Your task to perform on an android device: Add "usb-c to usb-b" to the cart on newegg, then select checkout. Image 0: 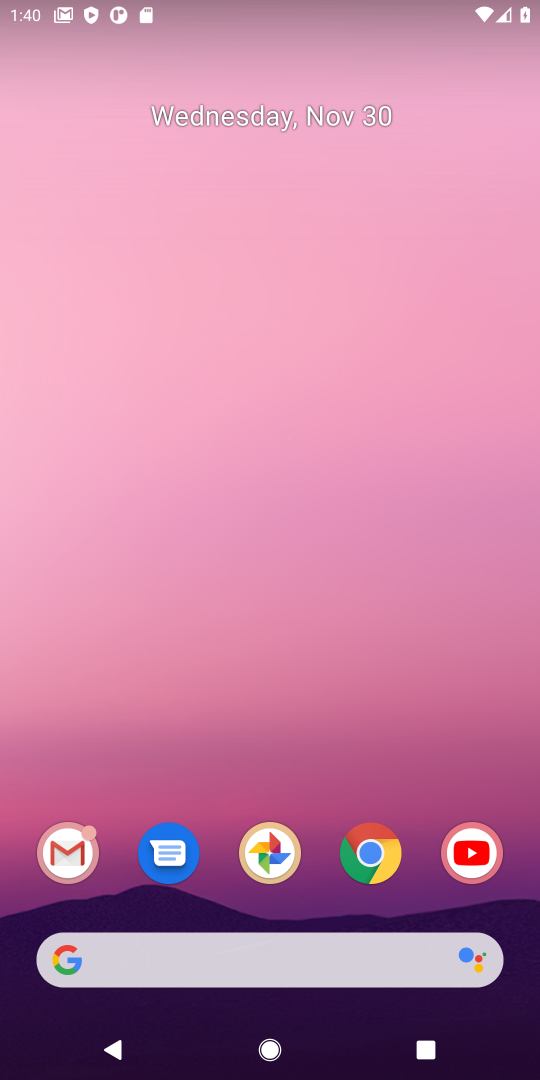
Step 0: click (374, 859)
Your task to perform on an android device: Add "usb-c to usb-b" to the cart on newegg, then select checkout. Image 1: 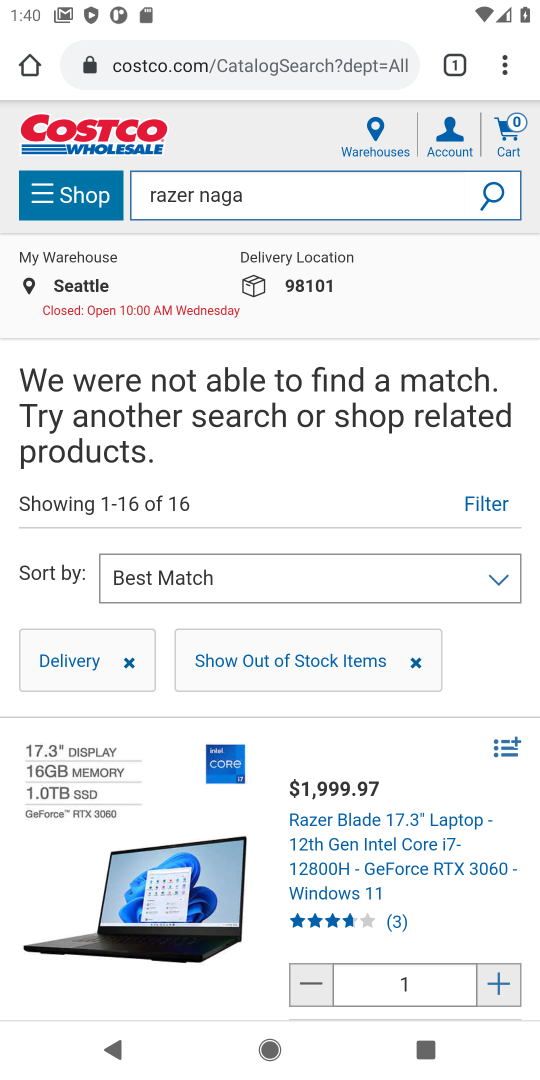
Step 1: click (243, 70)
Your task to perform on an android device: Add "usb-c to usb-b" to the cart on newegg, then select checkout. Image 2: 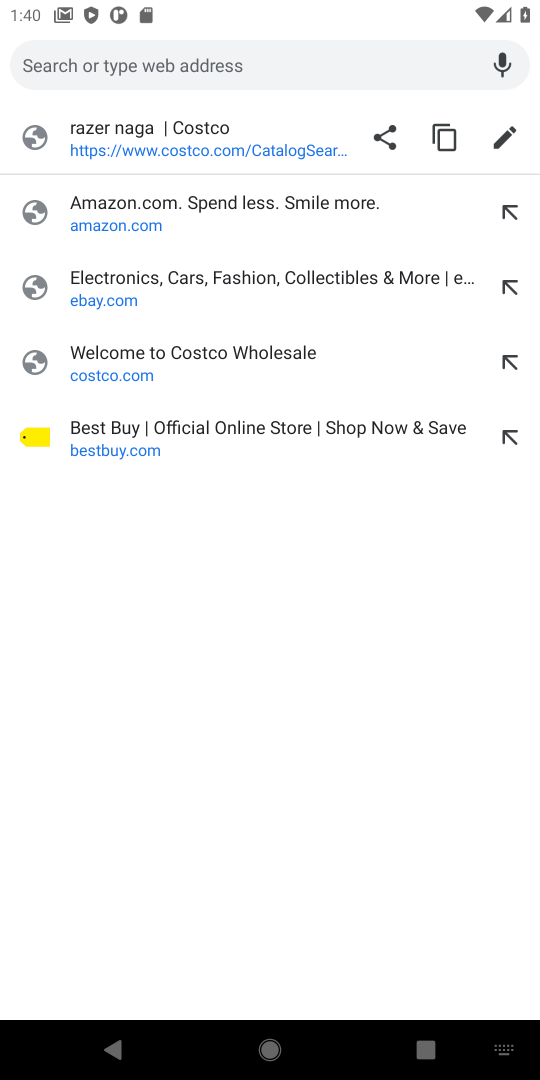
Step 2: type "newegg.com"
Your task to perform on an android device: Add "usb-c to usb-b" to the cart on newegg, then select checkout. Image 3: 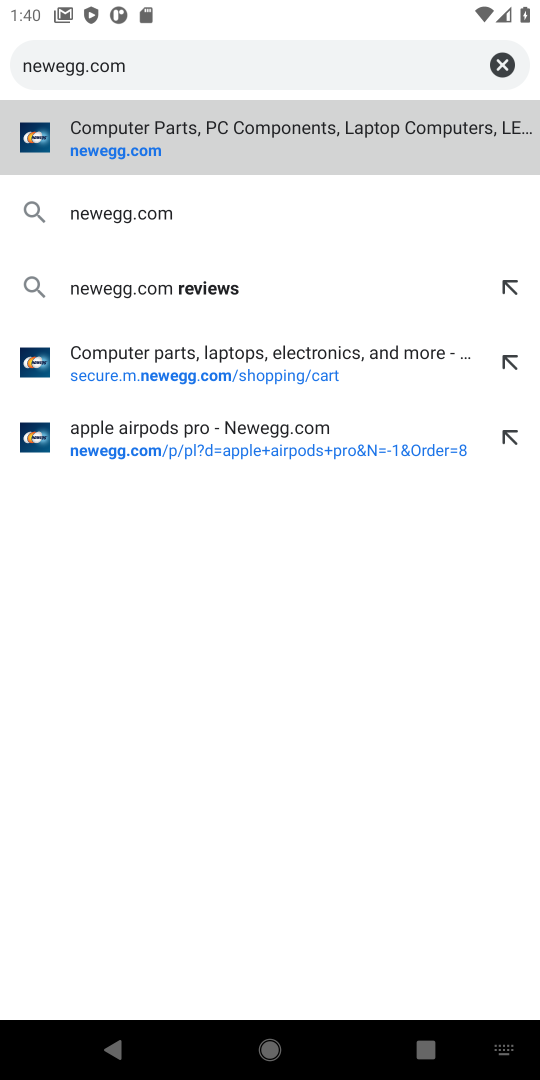
Step 3: click (126, 145)
Your task to perform on an android device: Add "usb-c to usb-b" to the cart on newegg, then select checkout. Image 4: 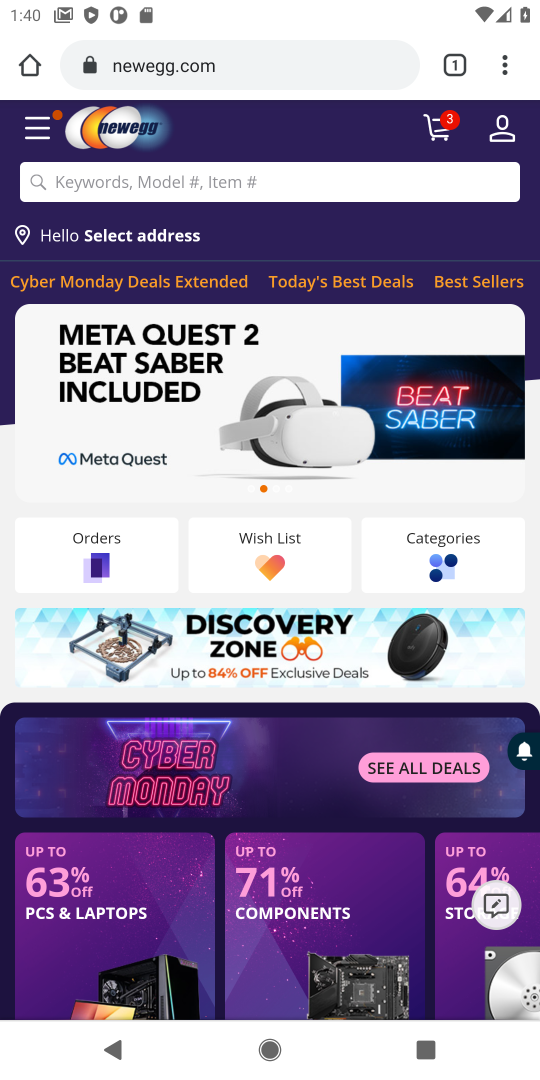
Step 4: click (113, 191)
Your task to perform on an android device: Add "usb-c to usb-b" to the cart on newegg, then select checkout. Image 5: 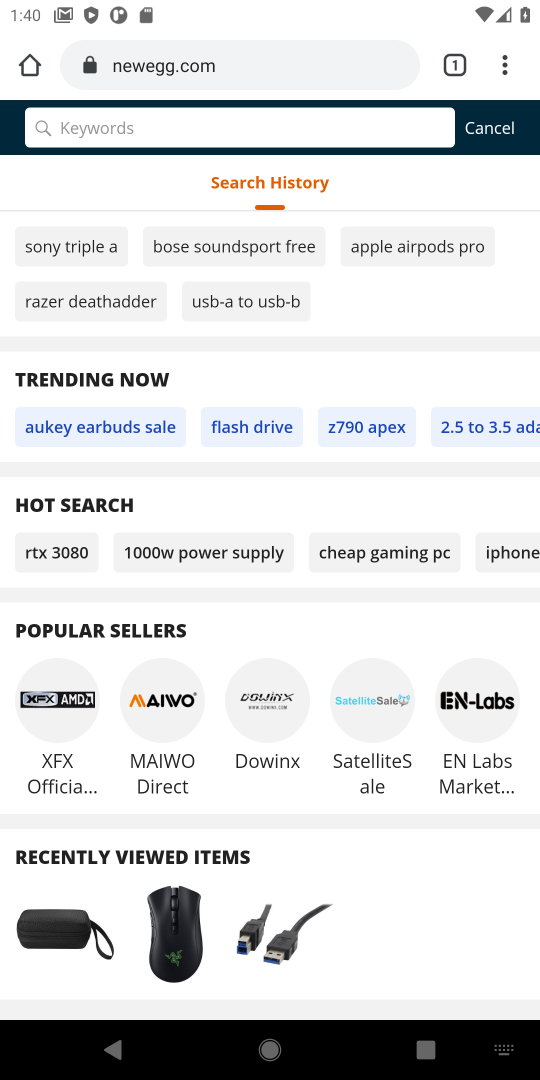
Step 5: type "usb-c to usb-b"
Your task to perform on an android device: Add "usb-c to usb-b" to the cart on newegg, then select checkout. Image 6: 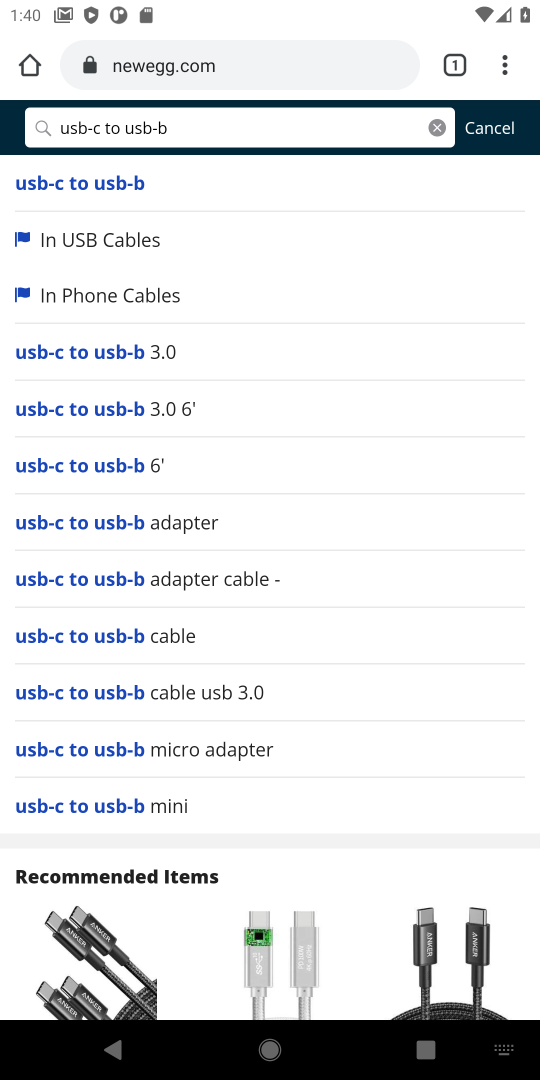
Step 6: click (69, 191)
Your task to perform on an android device: Add "usb-c to usb-b" to the cart on newegg, then select checkout. Image 7: 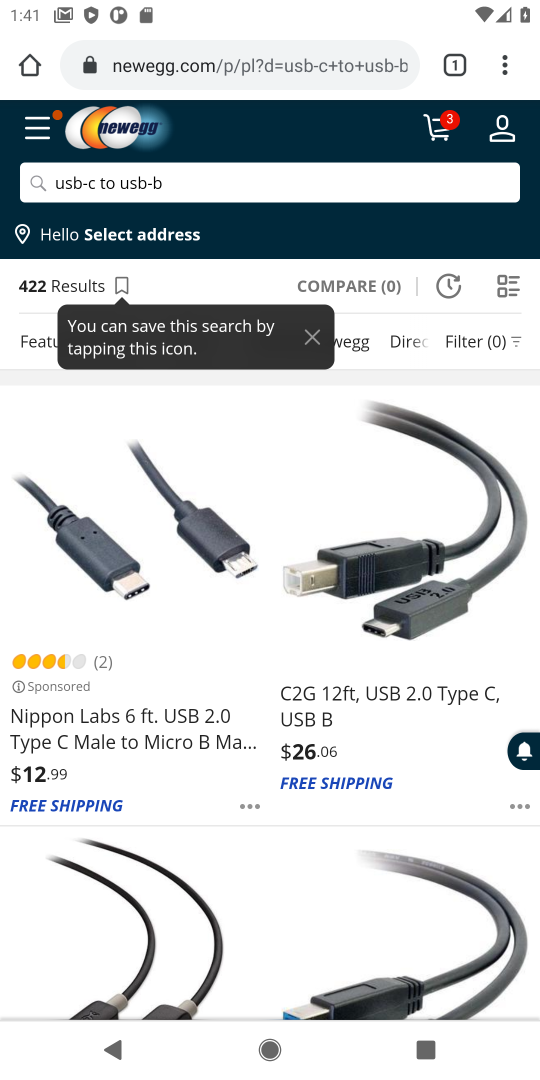
Step 7: drag from (283, 769) to (280, 533)
Your task to perform on an android device: Add "usb-c to usb-b" to the cart on newegg, then select checkout. Image 8: 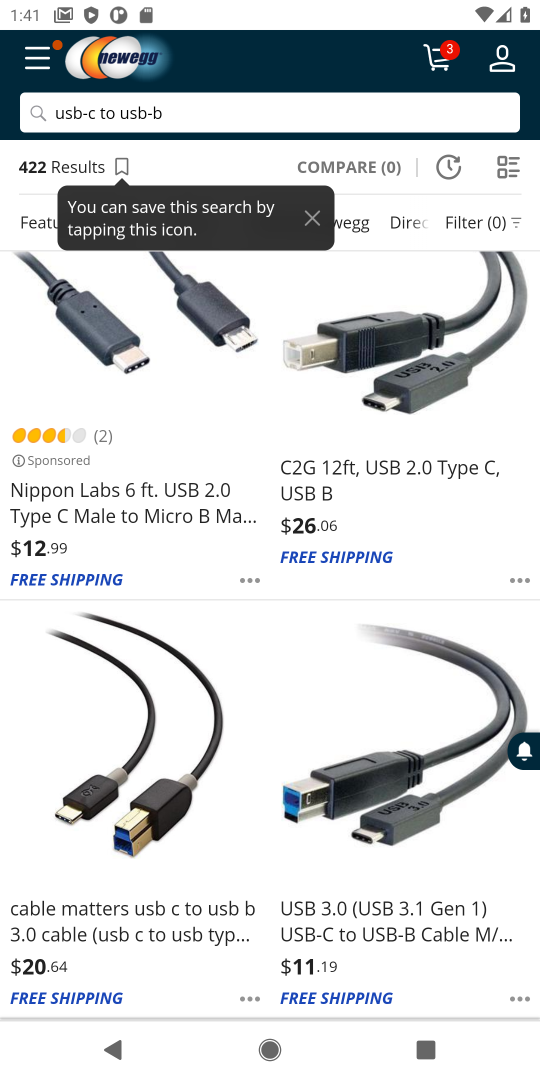
Step 8: click (392, 427)
Your task to perform on an android device: Add "usb-c to usb-b" to the cart on newegg, then select checkout. Image 9: 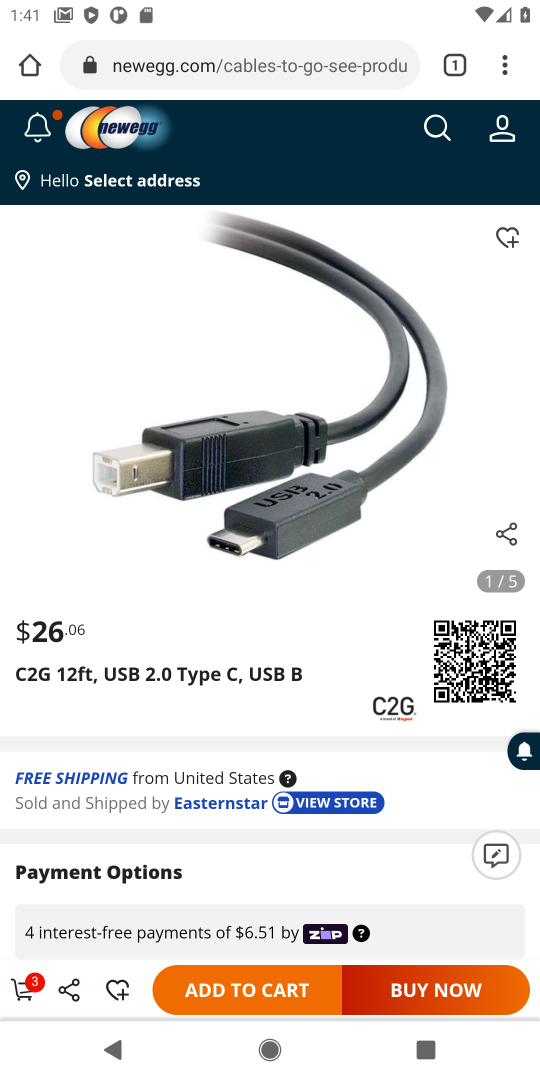
Step 9: drag from (292, 706) to (309, 461)
Your task to perform on an android device: Add "usb-c to usb-b" to the cart on newegg, then select checkout. Image 10: 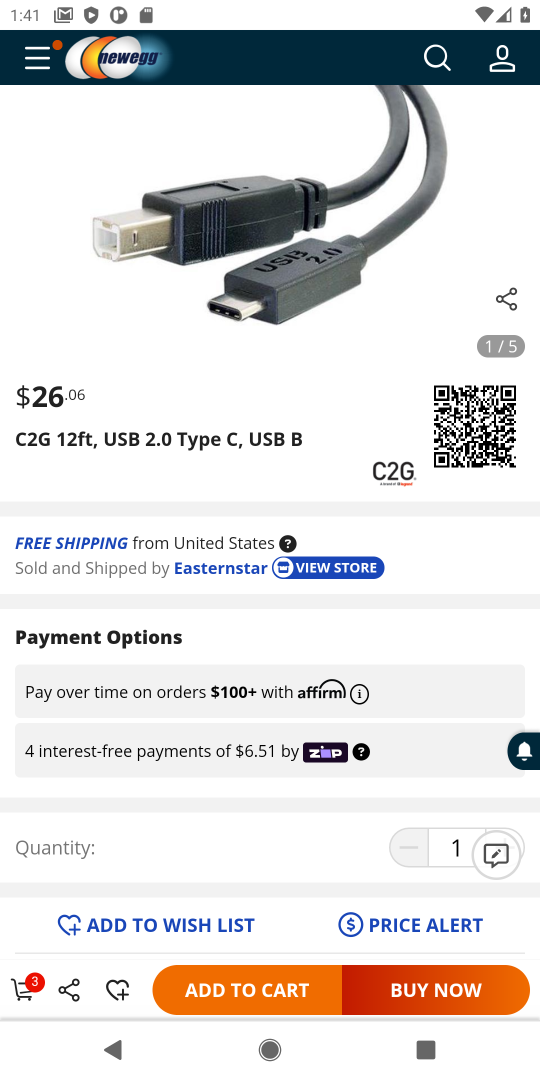
Step 10: click (243, 990)
Your task to perform on an android device: Add "usb-c to usb-b" to the cart on newegg, then select checkout. Image 11: 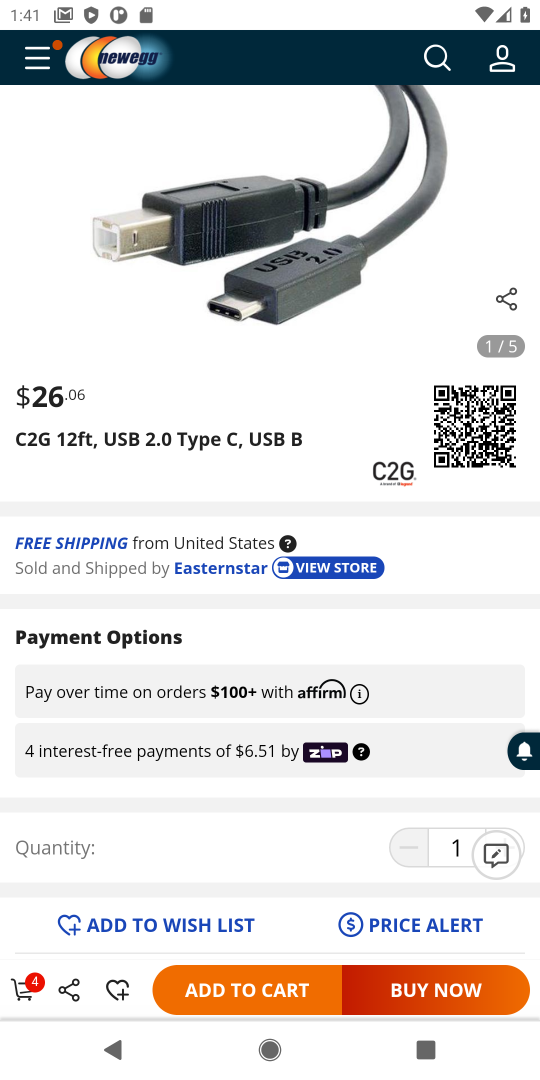
Step 11: click (22, 989)
Your task to perform on an android device: Add "usb-c to usb-b" to the cart on newegg, then select checkout. Image 12: 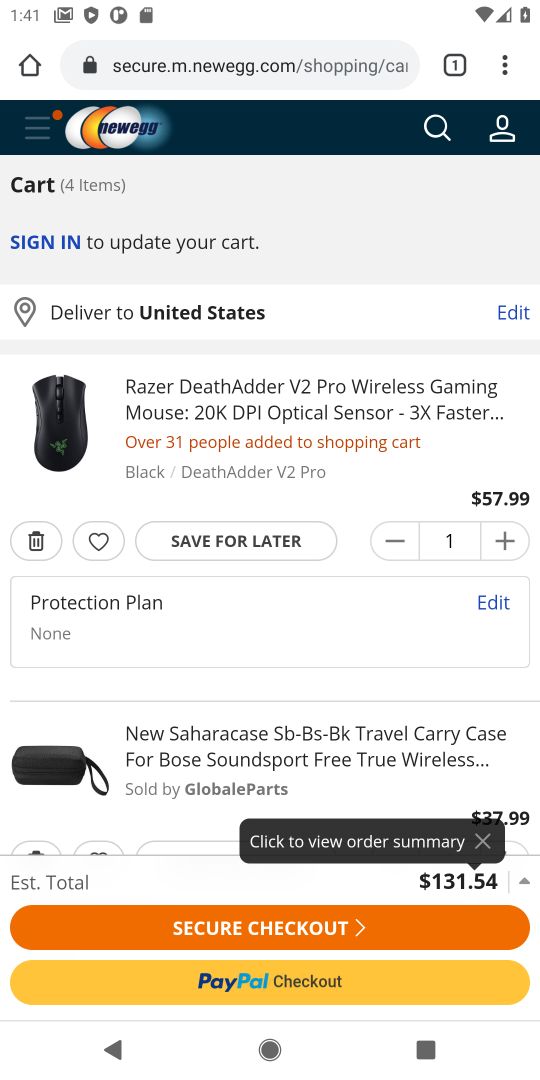
Step 12: click (242, 927)
Your task to perform on an android device: Add "usb-c to usb-b" to the cart on newegg, then select checkout. Image 13: 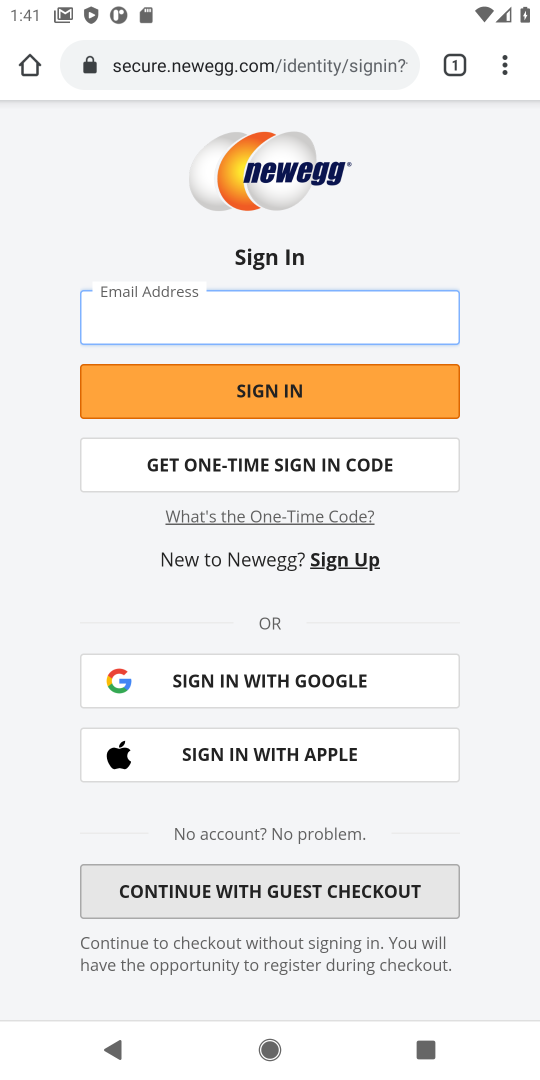
Step 13: task complete